Your task to perform on an android device: Open Android settings Image 0: 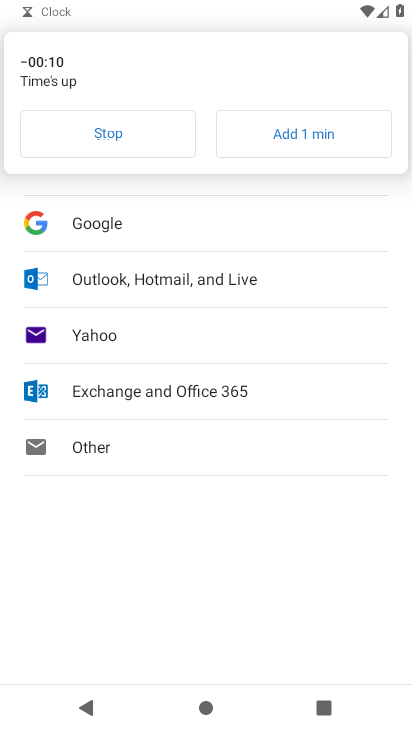
Step 0: click (148, 129)
Your task to perform on an android device: Open Android settings Image 1: 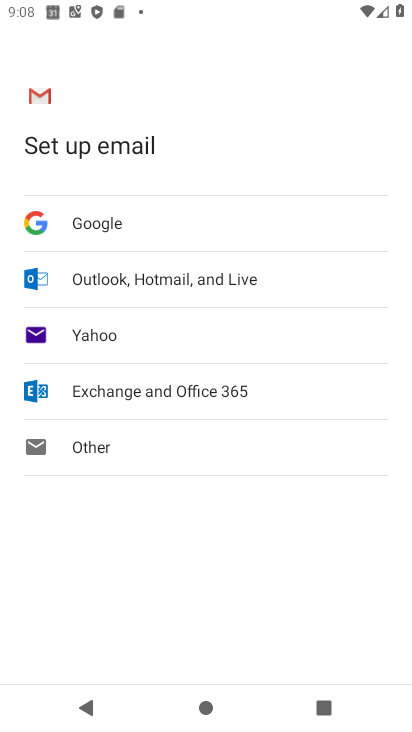
Step 1: press home button
Your task to perform on an android device: Open Android settings Image 2: 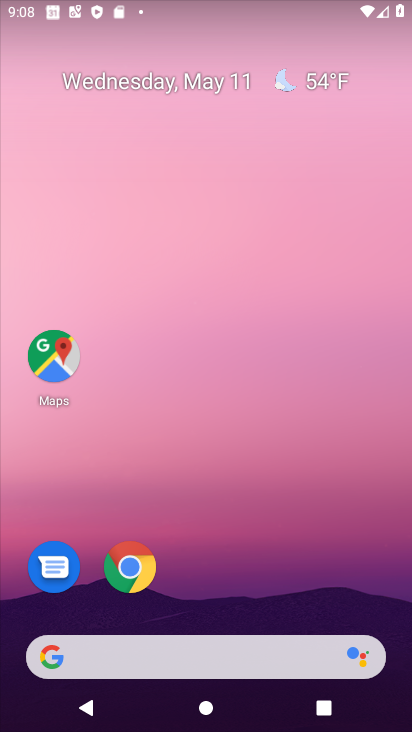
Step 2: drag from (205, 604) to (275, 162)
Your task to perform on an android device: Open Android settings Image 3: 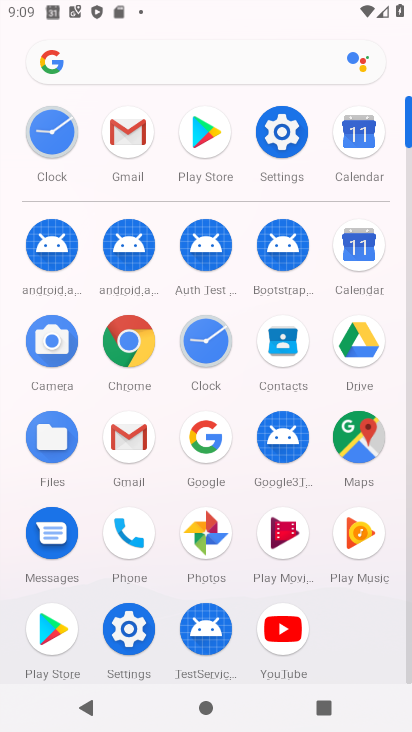
Step 3: click (131, 612)
Your task to perform on an android device: Open Android settings Image 4: 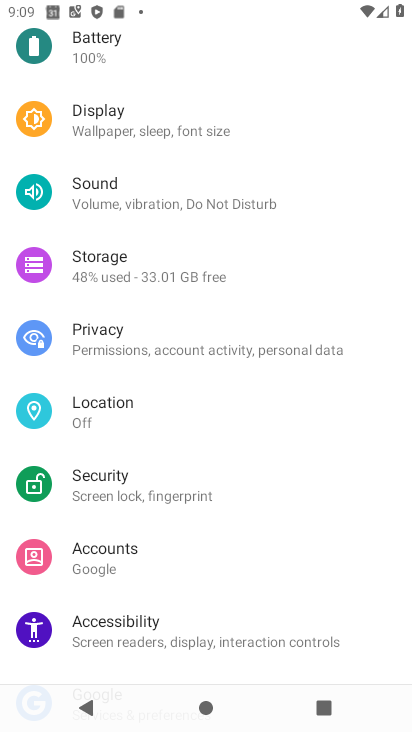
Step 4: drag from (168, 540) to (211, 23)
Your task to perform on an android device: Open Android settings Image 5: 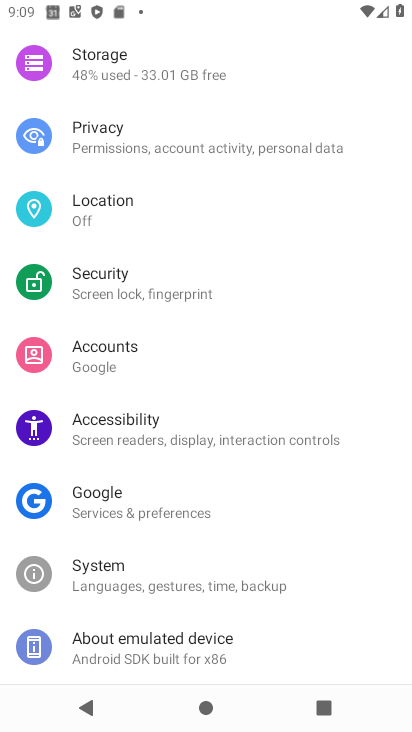
Step 5: click (147, 638)
Your task to perform on an android device: Open Android settings Image 6: 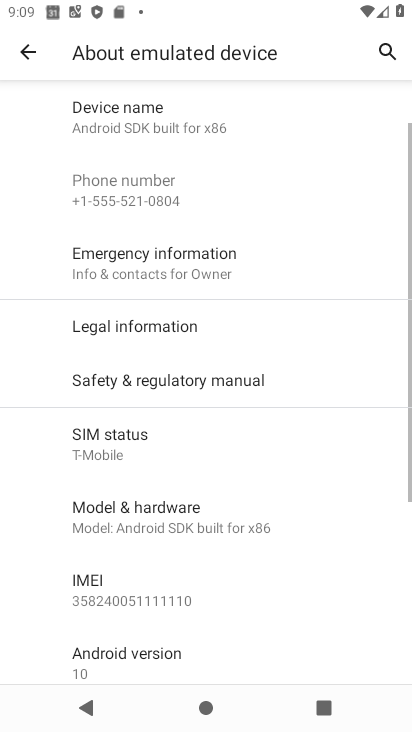
Step 6: drag from (153, 532) to (236, 288)
Your task to perform on an android device: Open Android settings Image 7: 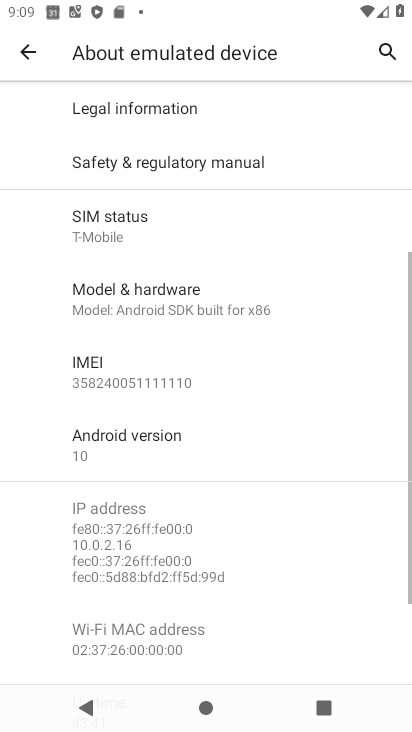
Step 7: click (114, 559)
Your task to perform on an android device: Open Android settings Image 8: 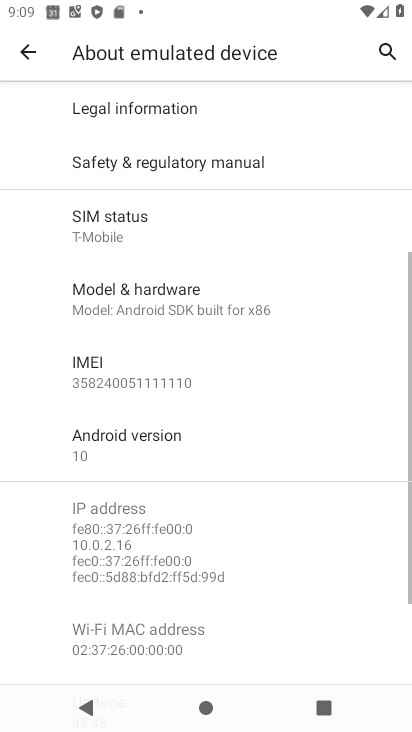
Step 8: drag from (165, 497) to (222, 303)
Your task to perform on an android device: Open Android settings Image 9: 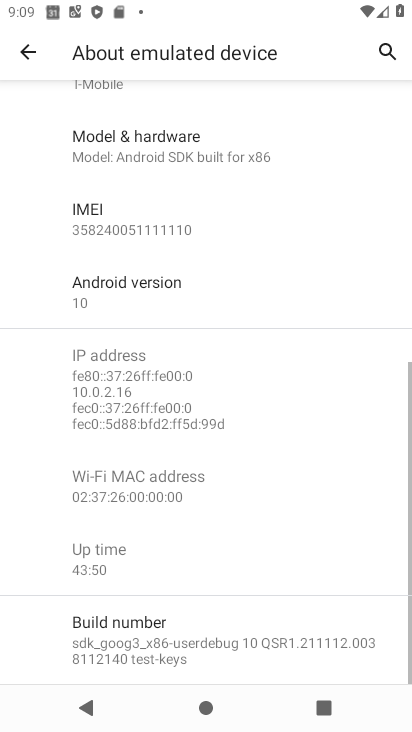
Step 9: click (135, 297)
Your task to perform on an android device: Open Android settings Image 10: 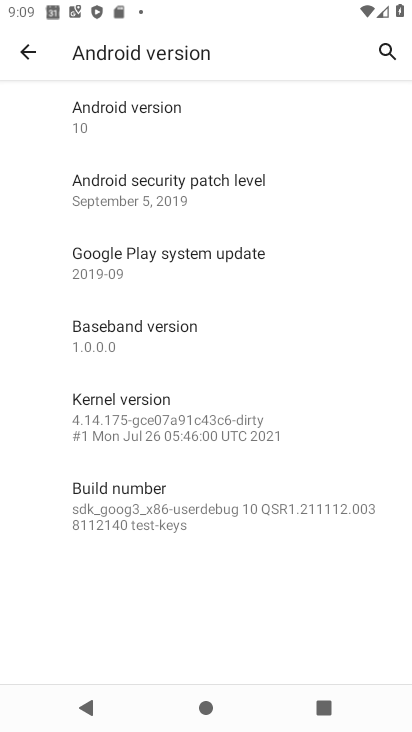
Step 10: task complete